Your task to perform on an android device: Open my contact list Image 0: 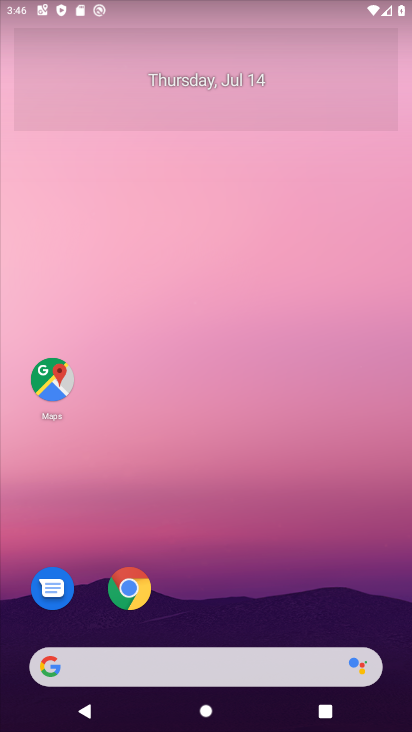
Step 0: drag from (324, 558) to (315, 51)
Your task to perform on an android device: Open my contact list Image 1: 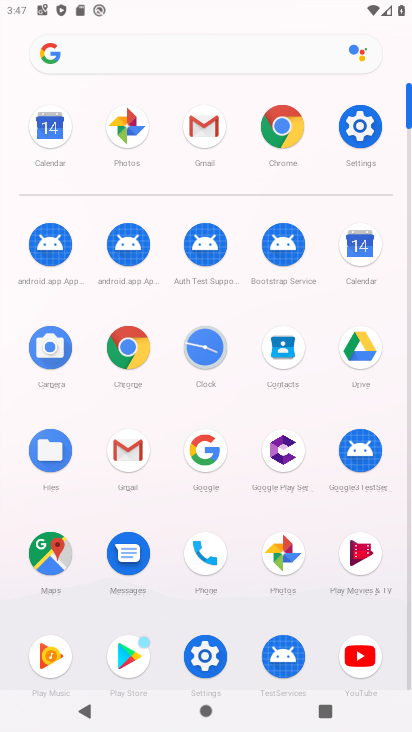
Step 1: click (207, 550)
Your task to perform on an android device: Open my contact list Image 2: 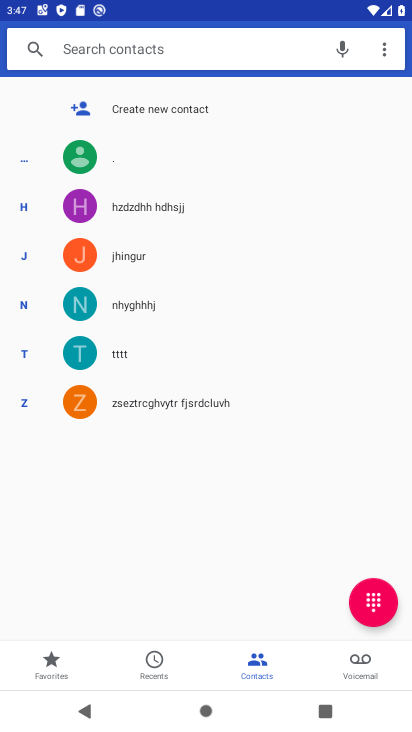
Step 2: task complete